Your task to perform on an android device: Turn on the flashlight Image 0: 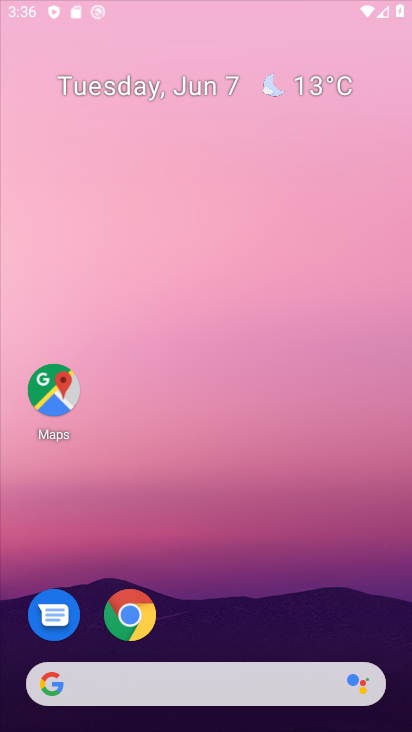
Step 0: drag from (326, 642) to (322, 292)
Your task to perform on an android device: Turn on the flashlight Image 1: 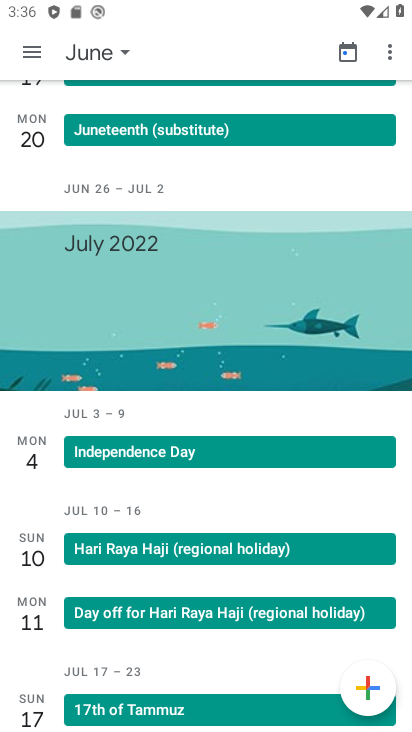
Step 1: task complete